Your task to perform on an android device: Add "logitech g502" to the cart on bestbuy, then select checkout. Image 0: 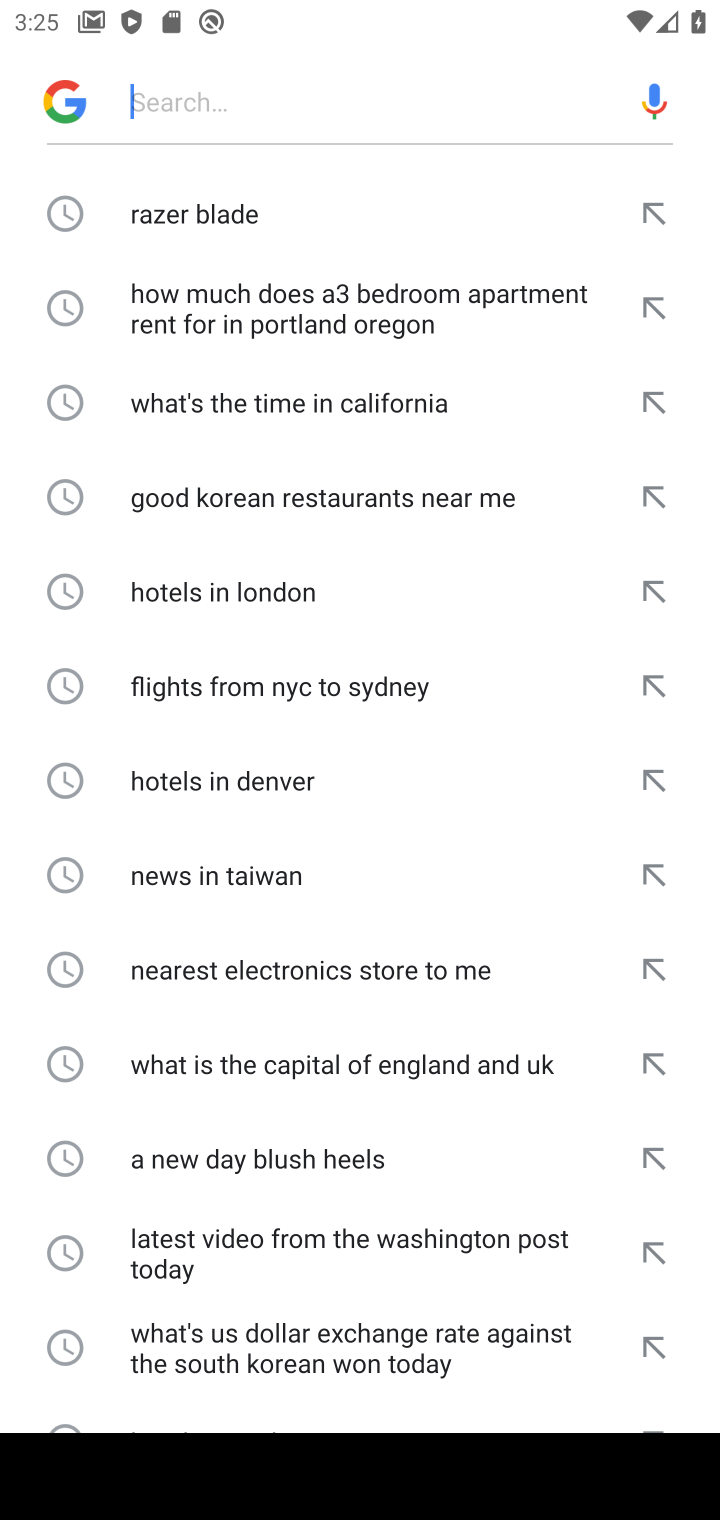
Step 0: type "bestbuy.com"
Your task to perform on an android device: Add "logitech g502" to the cart on bestbuy, then select checkout. Image 1: 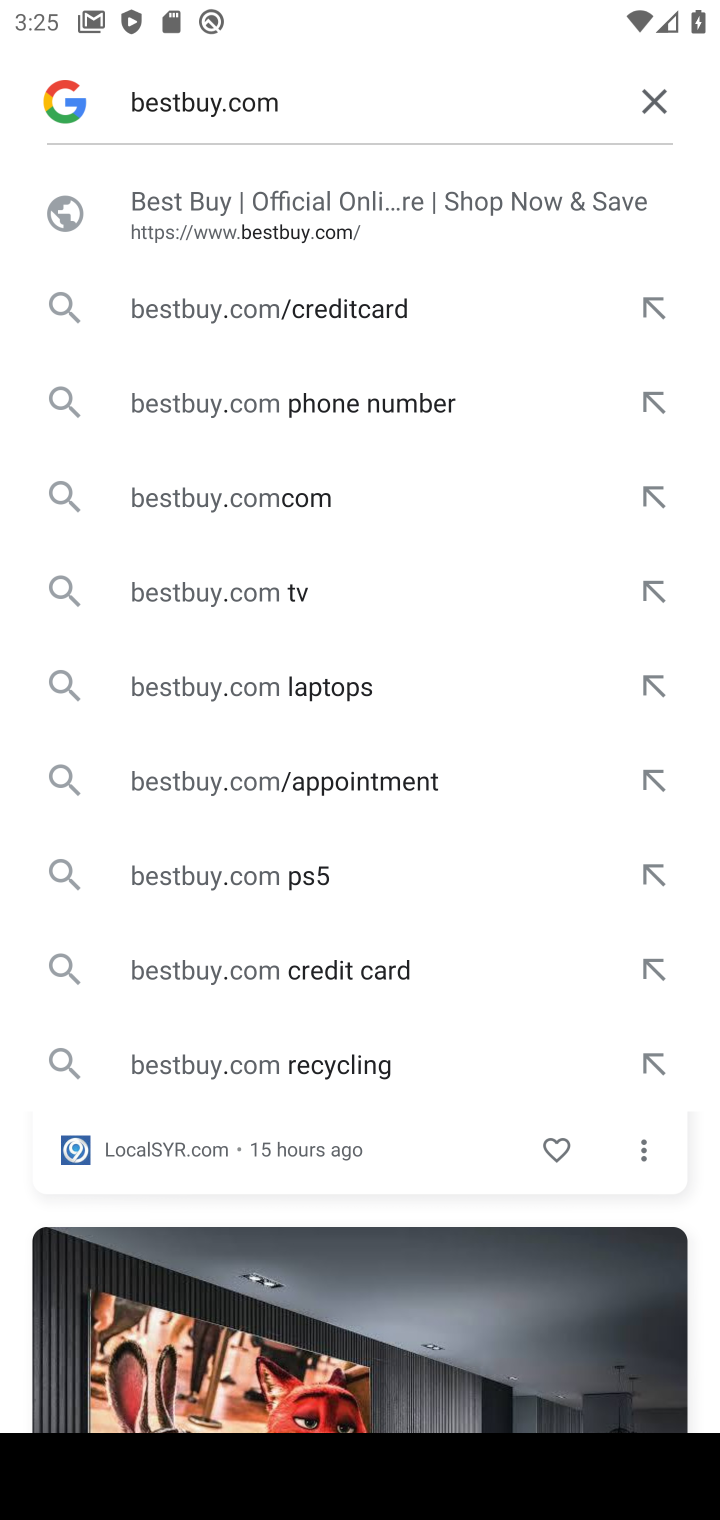
Step 1: press enter
Your task to perform on an android device: Add "logitech g502" to the cart on bestbuy, then select checkout. Image 2: 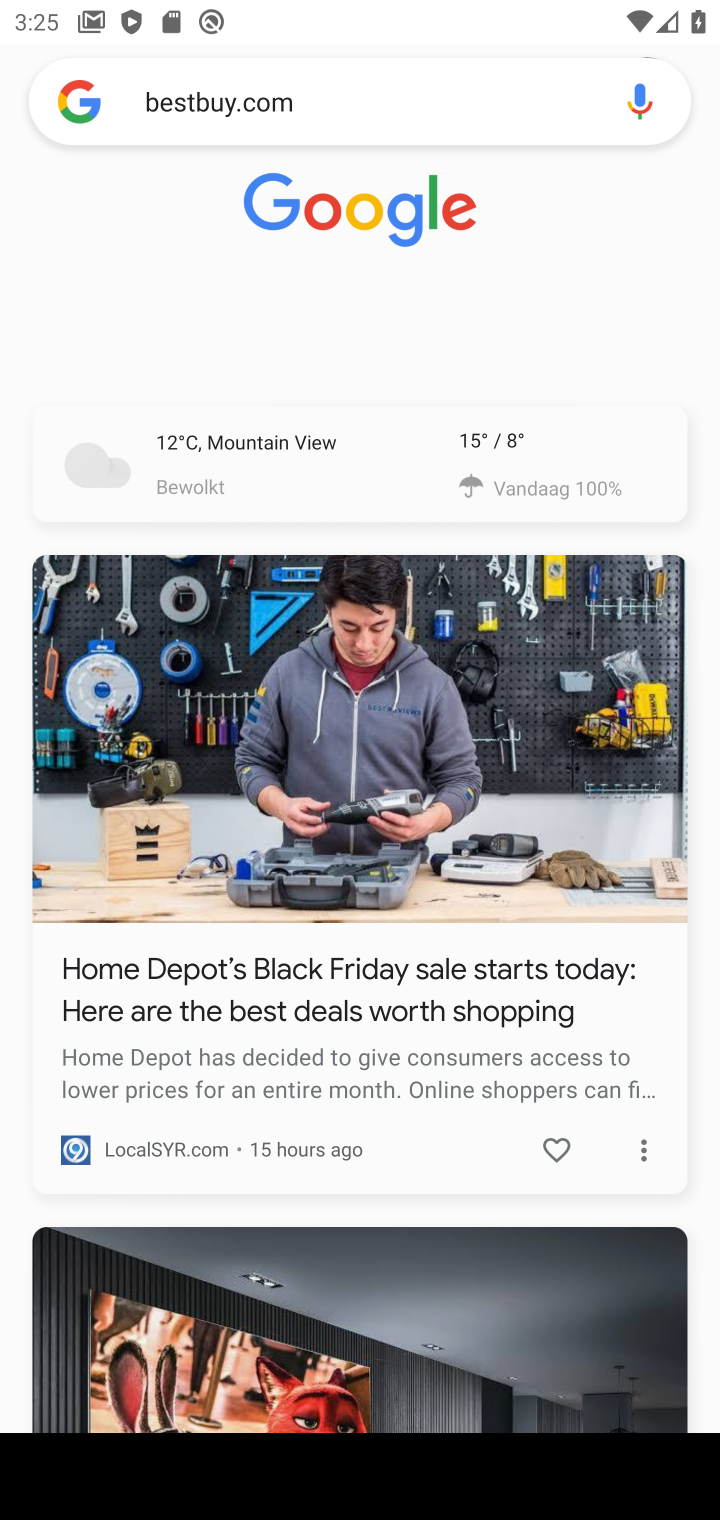
Step 2: press enter
Your task to perform on an android device: Add "logitech g502" to the cart on bestbuy, then select checkout. Image 3: 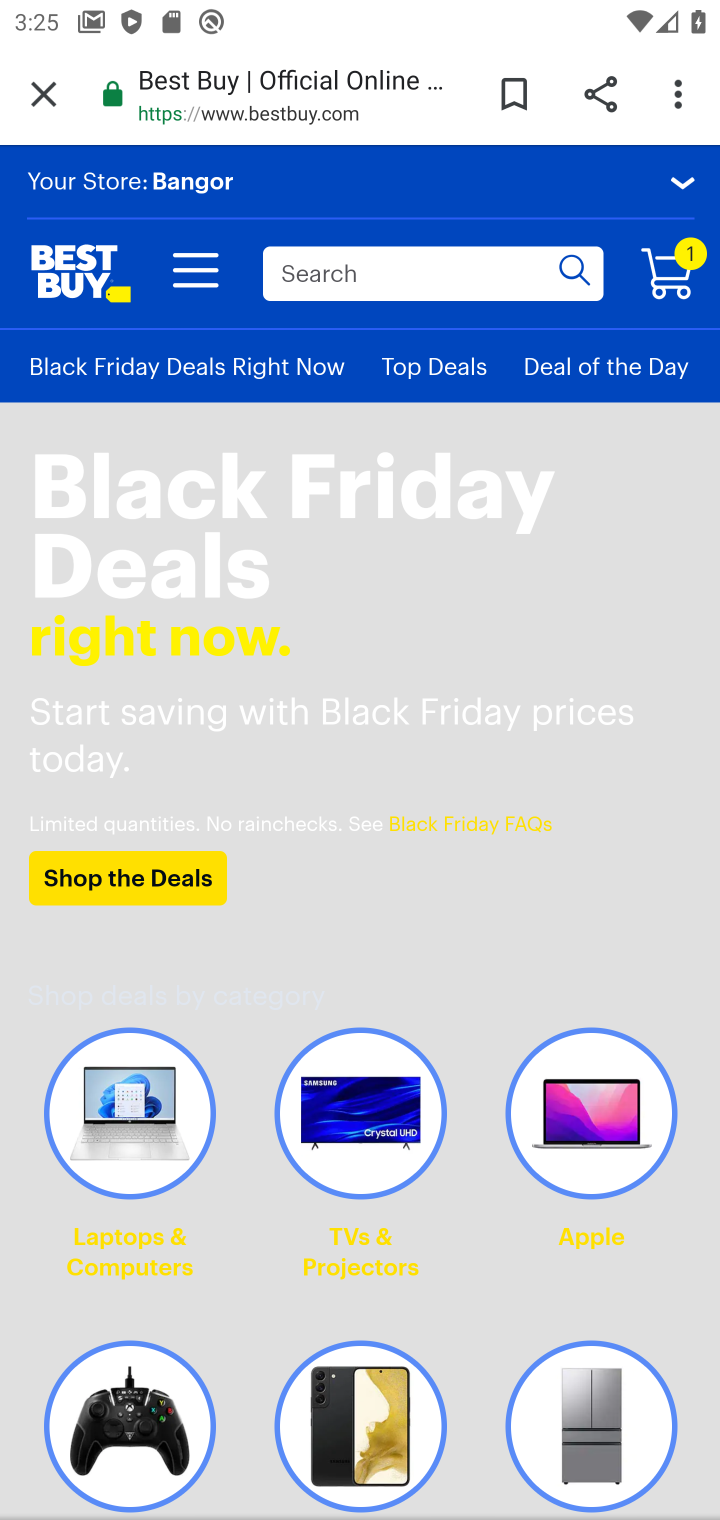
Step 3: click (309, 263)
Your task to perform on an android device: Add "logitech g502" to the cart on bestbuy, then select checkout. Image 4: 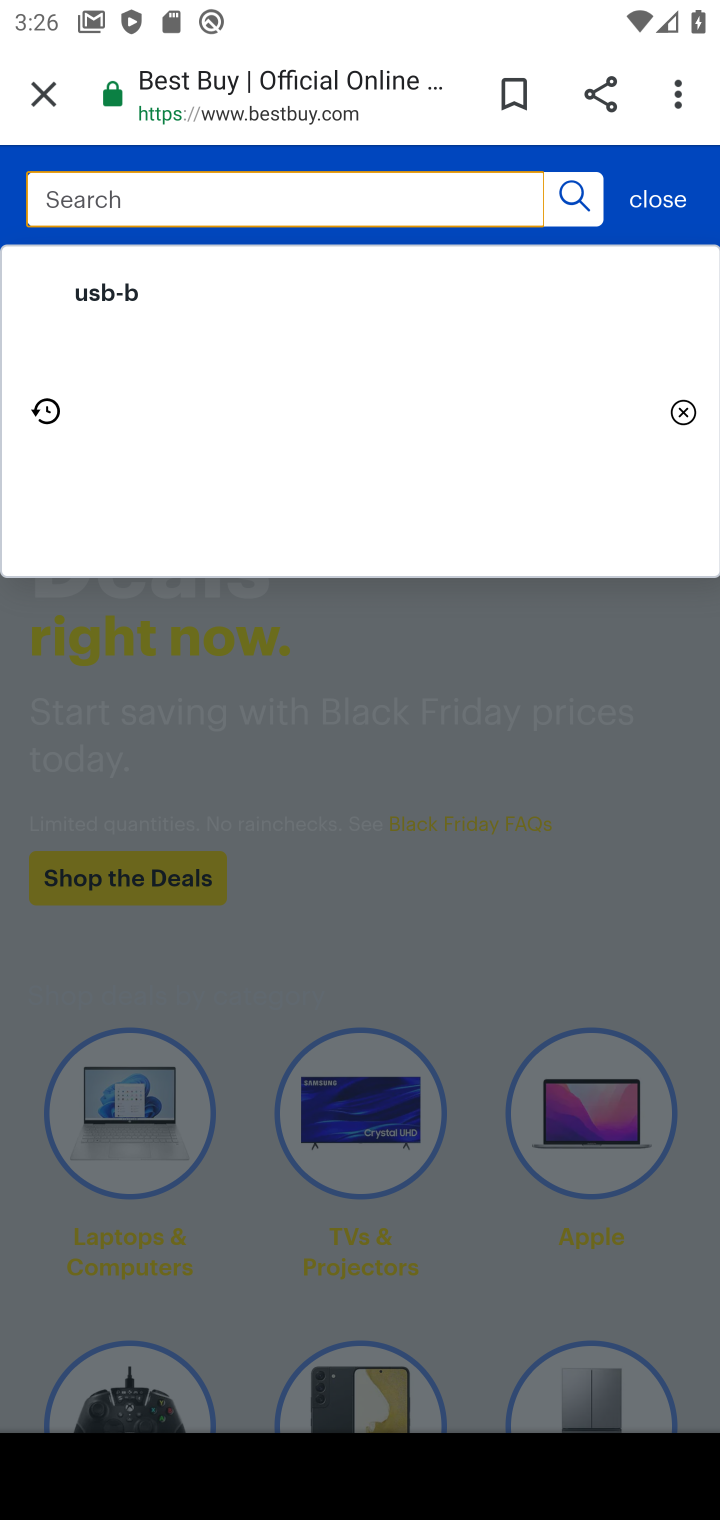
Step 4: type "logitech g502"
Your task to perform on an android device: Add "logitech g502" to the cart on bestbuy, then select checkout. Image 5: 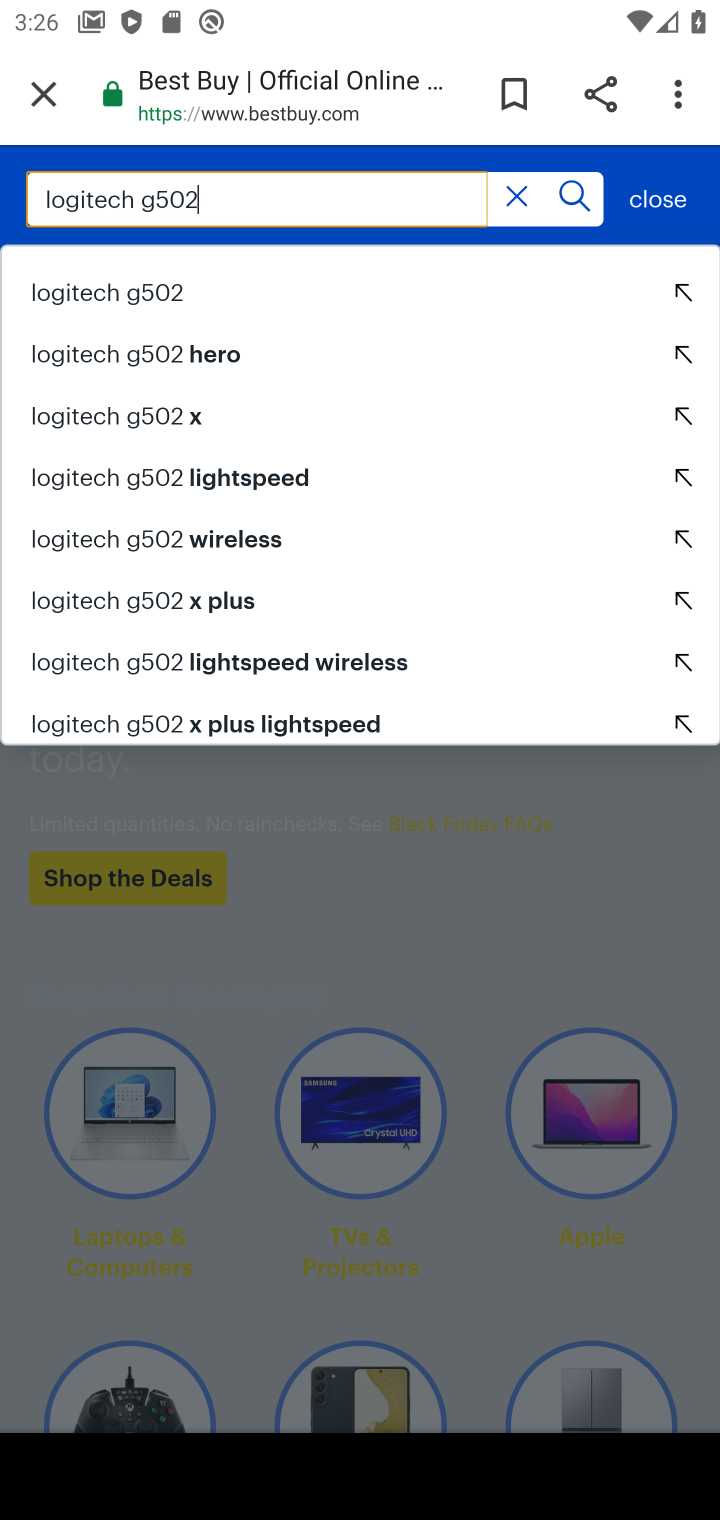
Step 5: press enter
Your task to perform on an android device: Add "logitech g502" to the cart on bestbuy, then select checkout. Image 6: 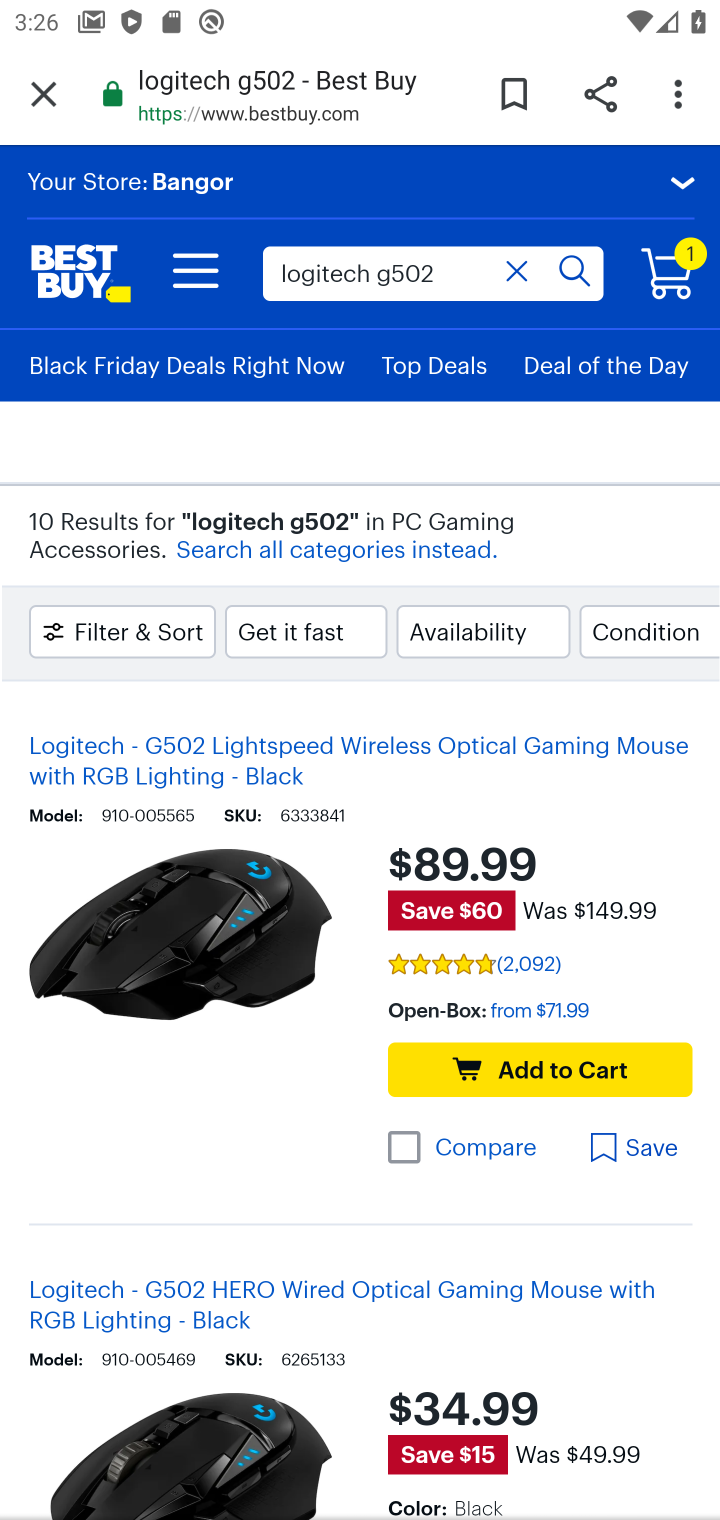
Step 6: click (552, 1146)
Your task to perform on an android device: Add "logitech g502" to the cart on bestbuy, then select checkout. Image 7: 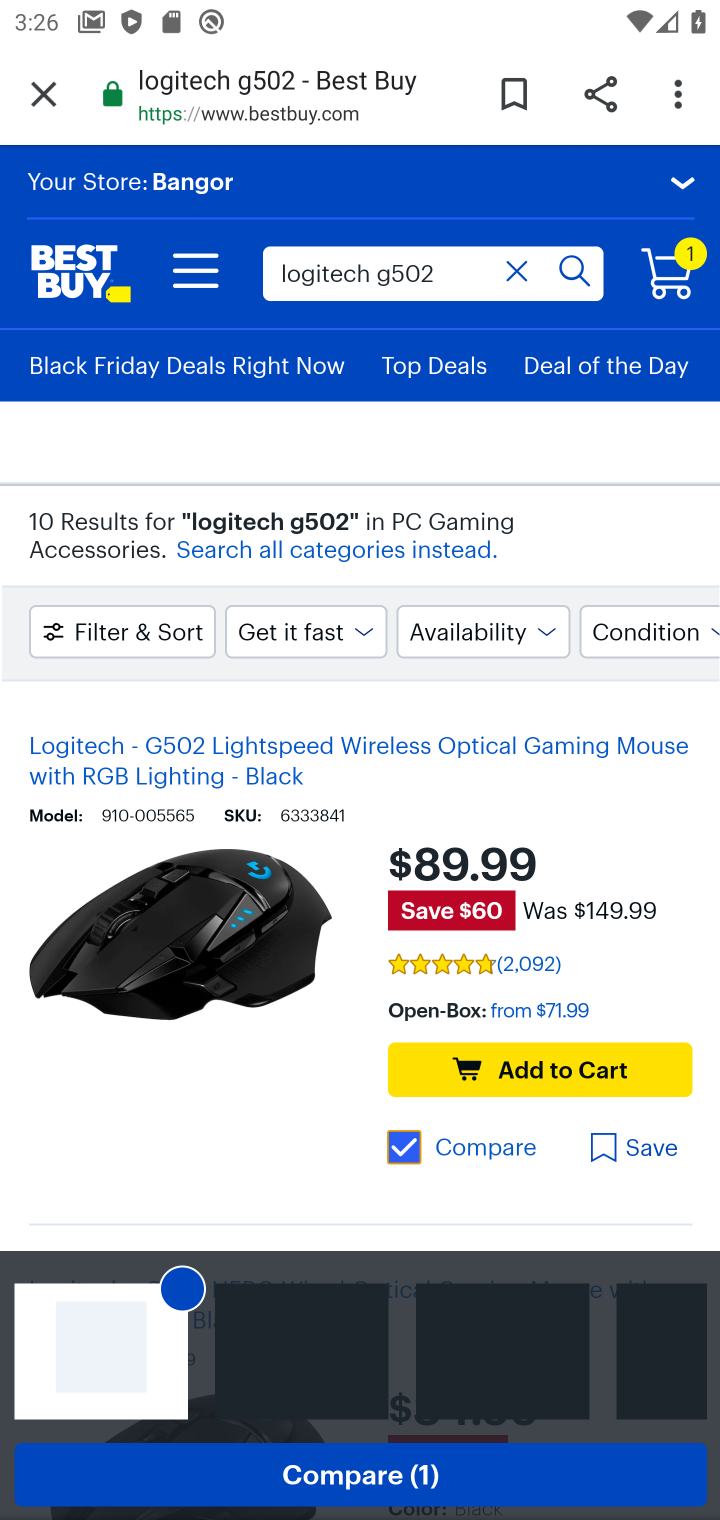
Step 7: click (500, 1137)
Your task to perform on an android device: Add "logitech g502" to the cart on bestbuy, then select checkout. Image 8: 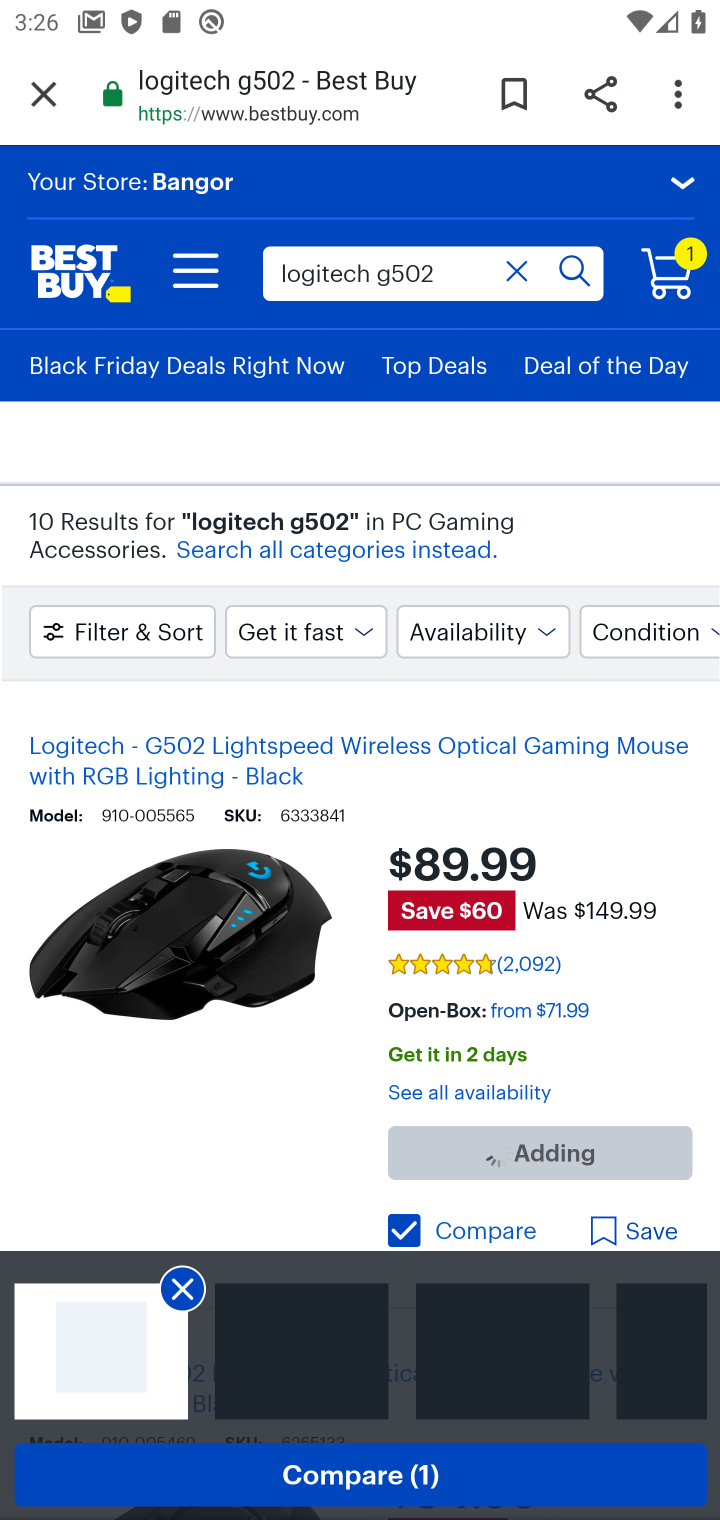
Step 8: click (406, 1233)
Your task to perform on an android device: Add "logitech g502" to the cart on bestbuy, then select checkout. Image 9: 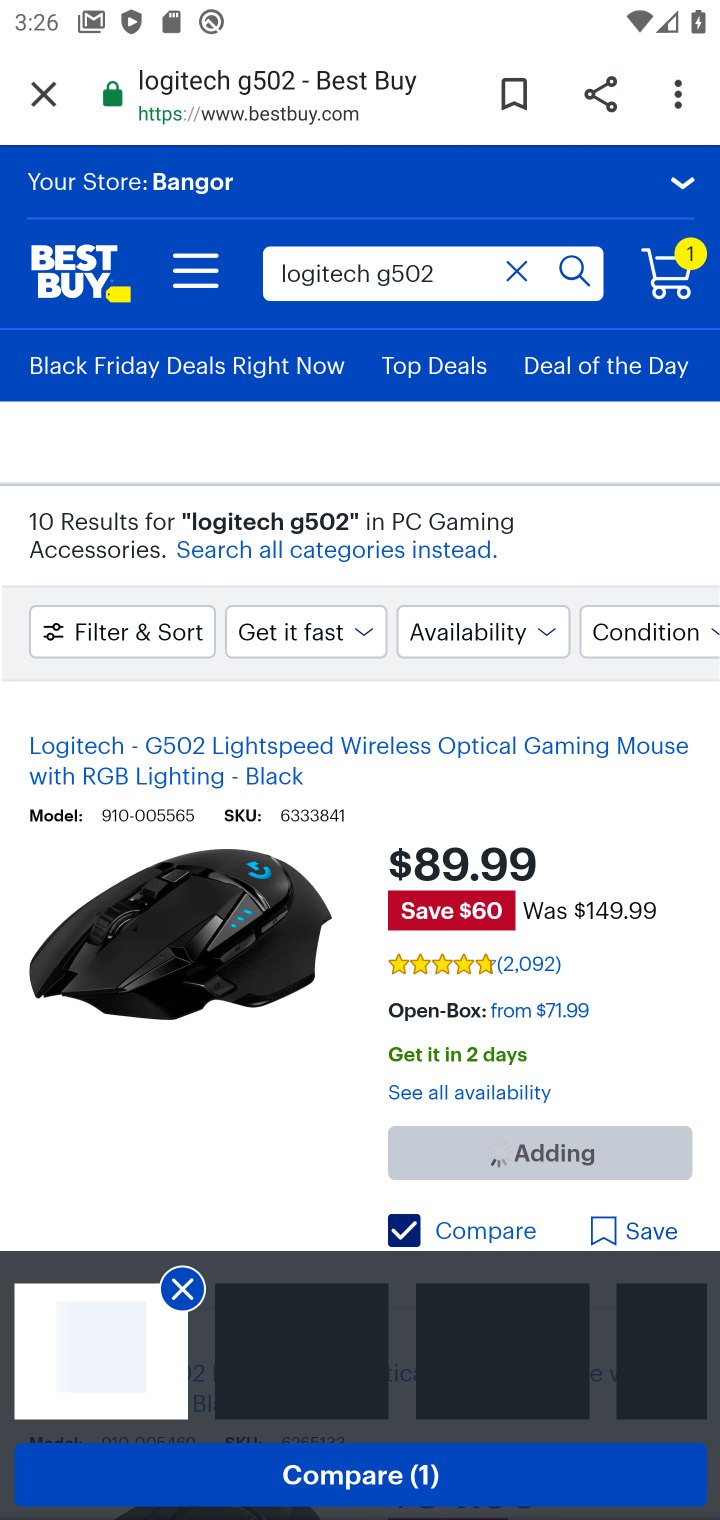
Step 9: click (174, 1297)
Your task to perform on an android device: Add "logitech g502" to the cart on bestbuy, then select checkout. Image 10: 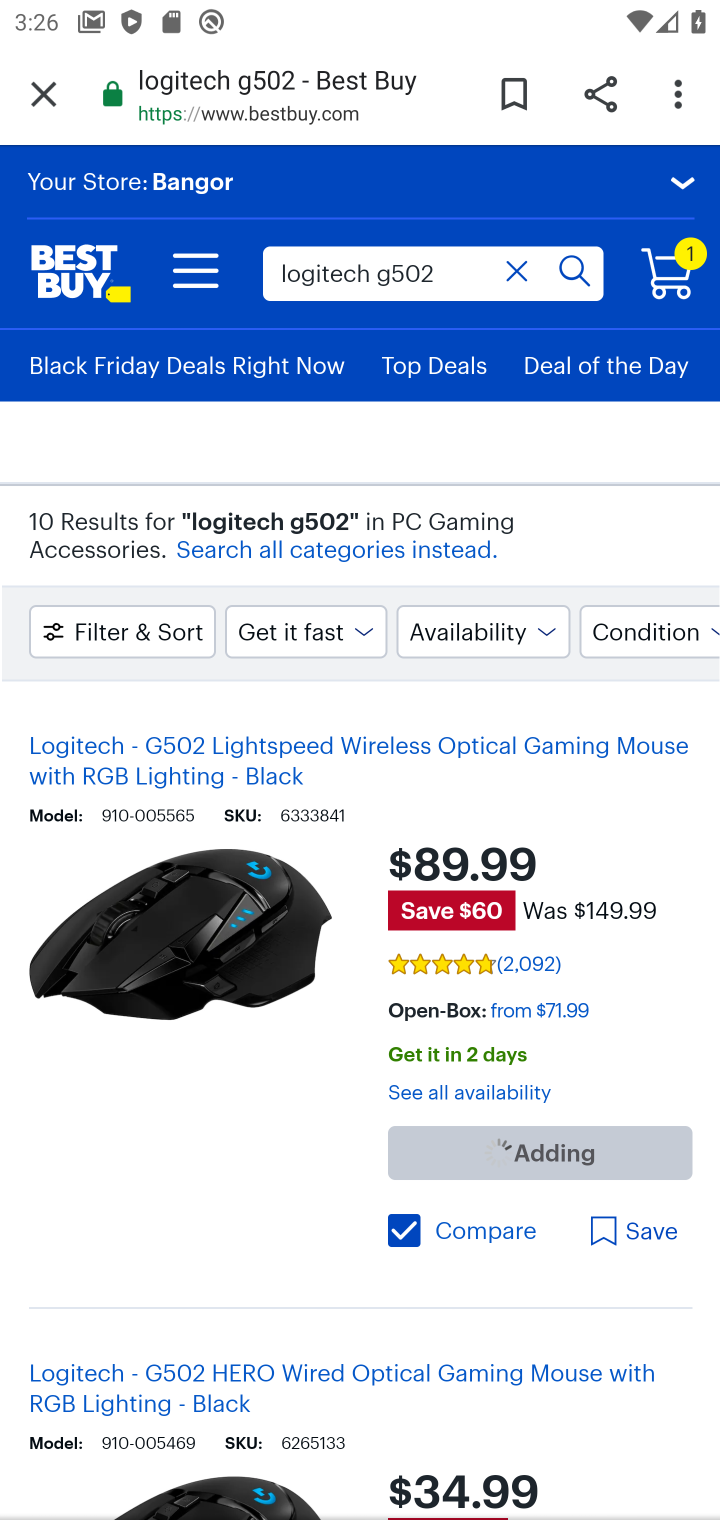
Step 10: click (367, 1067)
Your task to perform on an android device: Add "logitech g502" to the cart on bestbuy, then select checkout. Image 11: 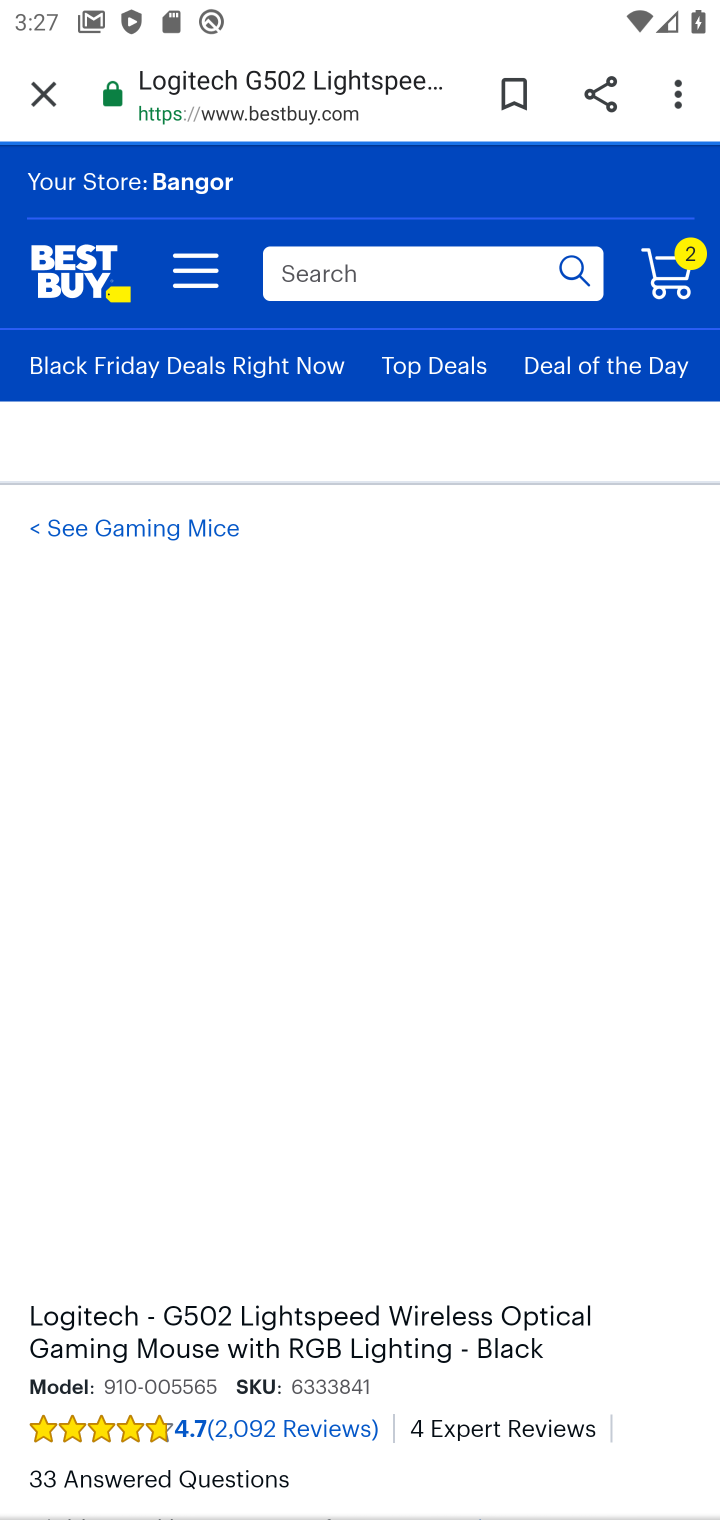
Step 11: drag from (365, 1230) to (496, 13)
Your task to perform on an android device: Add "logitech g502" to the cart on bestbuy, then select checkout. Image 12: 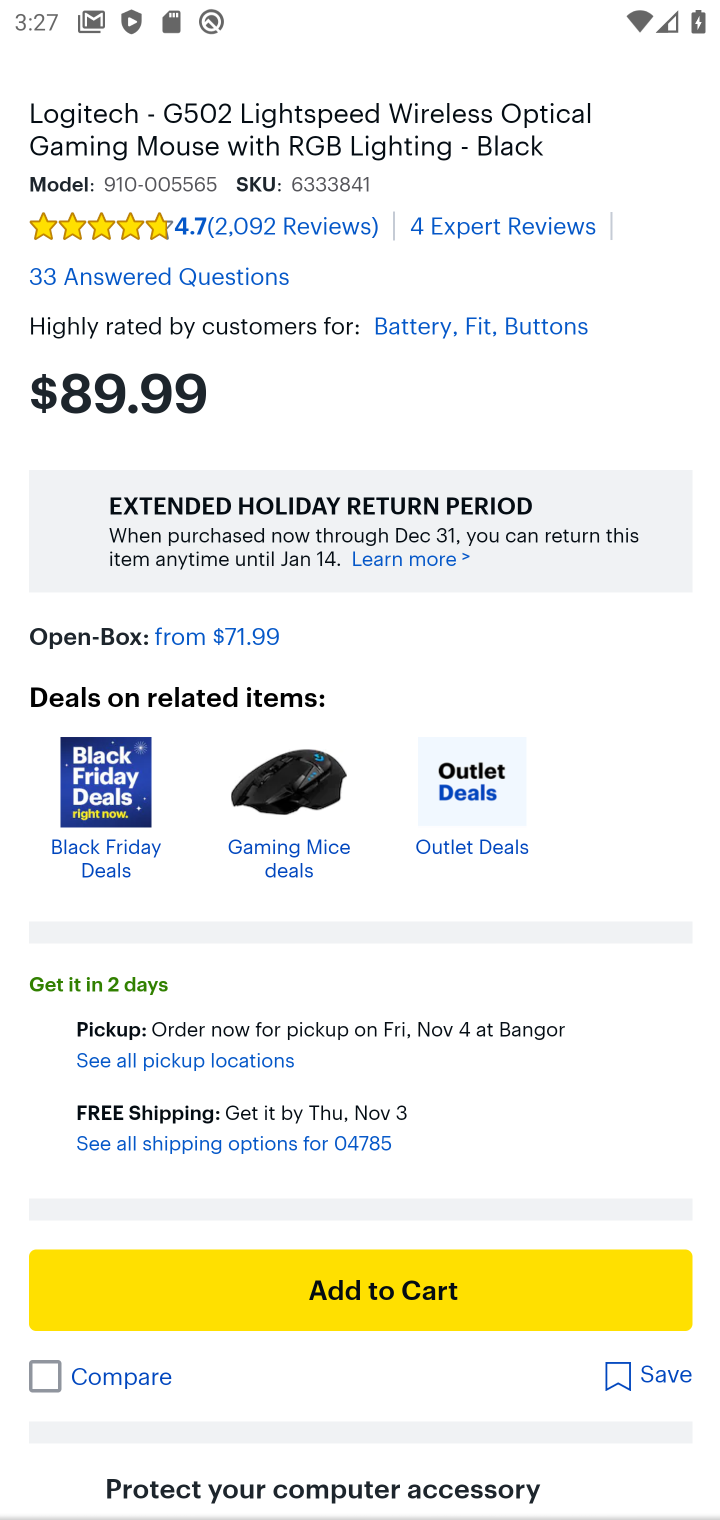
Step 12: drag from (396, 408) to (401, 1510)
Your task to perform on an android device: Add "logitech g502" to the cart on bestbuy, then select checkout. Image 13: 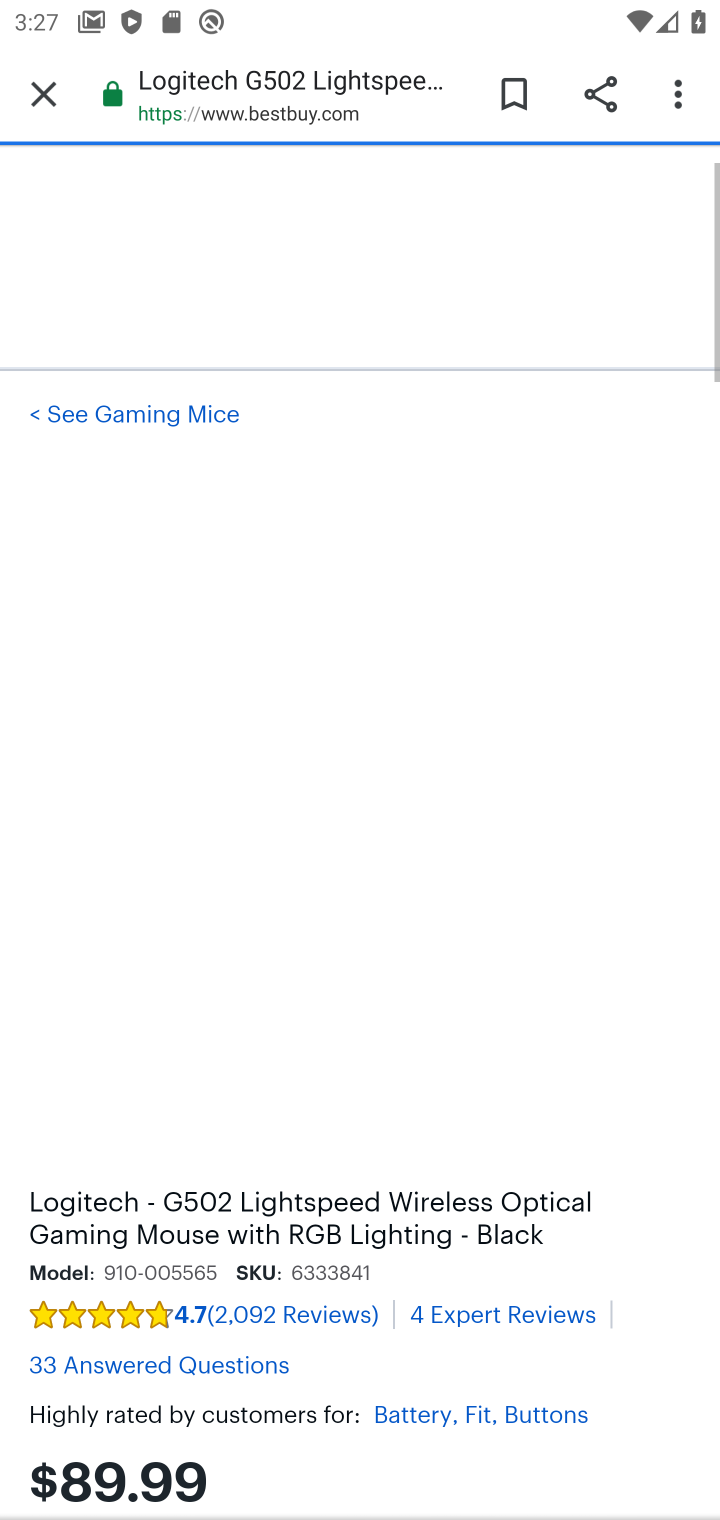
Step 13: drag from (514, 263) to (478, 1052)
Your task to perform on an android device: Add "logitech g502" to the cart on bestbuy, then select checkout. Image 14: 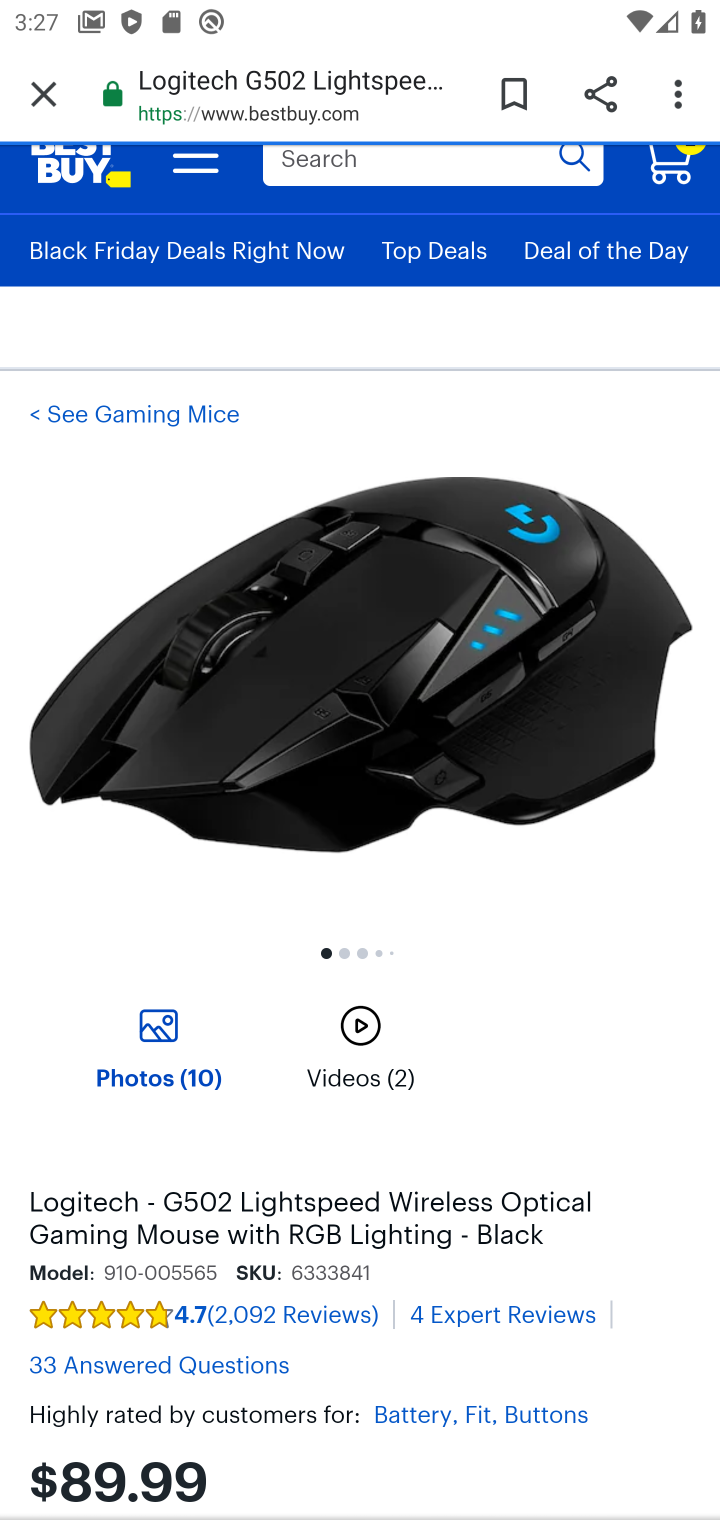
Step 14: click (681, 175)
Your task to perform on an android device: Add "logitech g502" to the cart on bestbuy, then select checkout. Image 15: 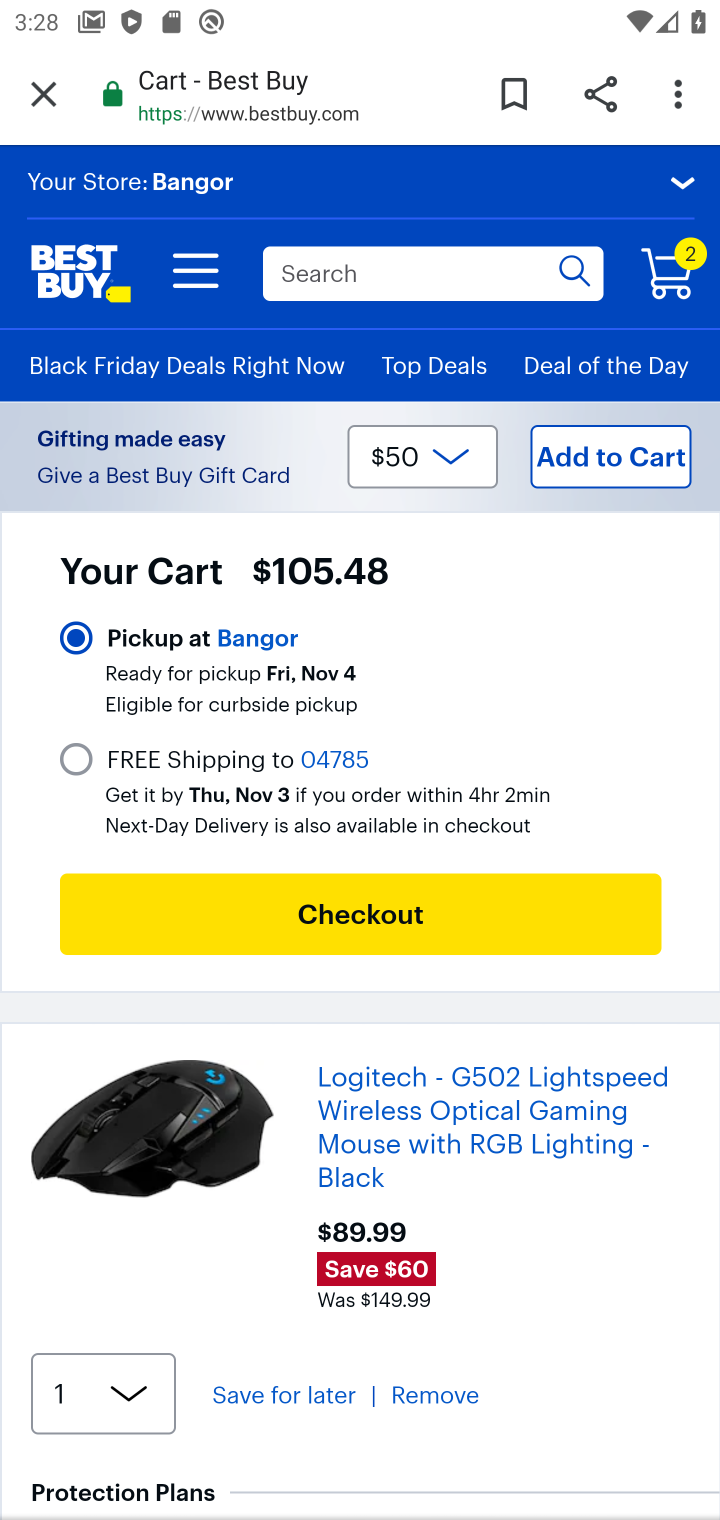
Step 15: click (518, 920)
Your task to perform on an android device: Add "logitech g502" to the cart on bestbuy, then select checkout. Image 16: 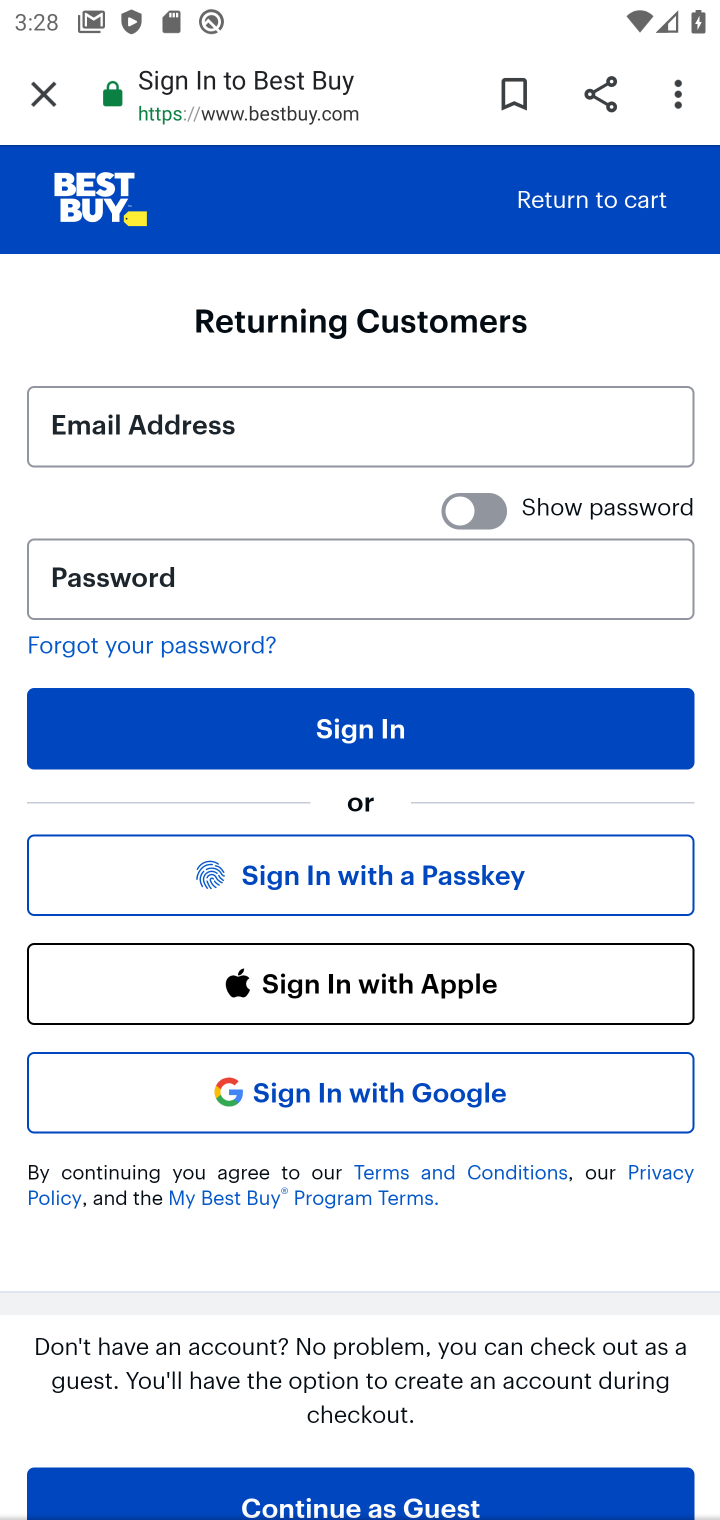
Step 16: task complete